Your task to perform on an android device: add a label to a message in the gmail app Image 0: 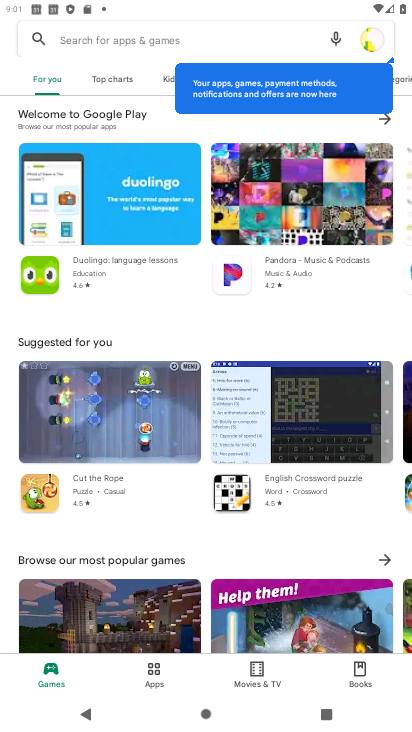
Step 0: press home button
Your task to perform on an android device: add a label to a message in the gmail app Image 1: 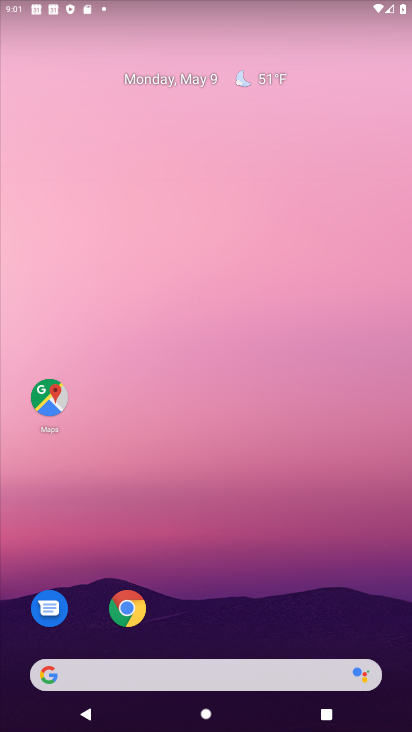
Step 1: drag from (285, 537) to (322, 81)
Your task to perform on an android device: add a label to a message in the gmail app Image 2: 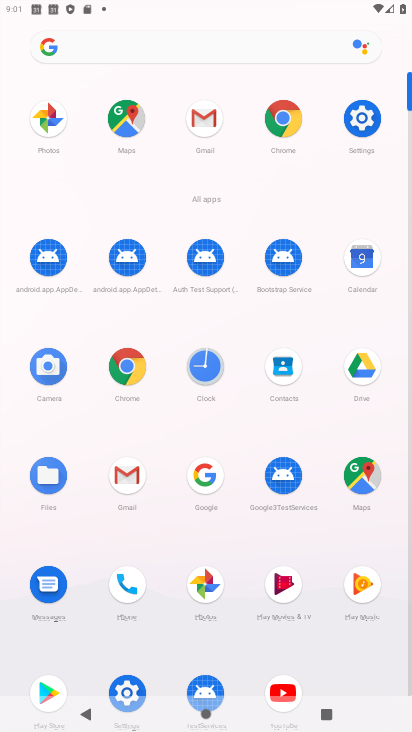
Step 2: click (201, 124)
Your task to perform on an android device: add a label to a message in the gmail app Image 3: 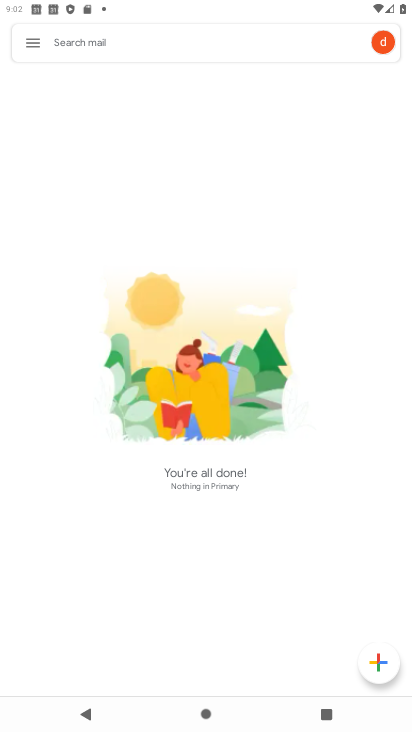
Step 3: click (22, 44)
Your task to perform on an android device: add a label to a message in the gmail app Image 4: 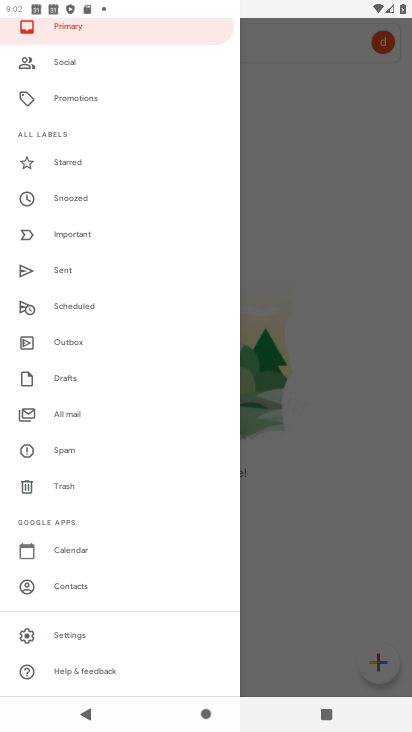
Step 4: drag from (76, 109) to (85, 542)
Your task to perform on an android device: add a label to a message in the gmail app Image 5: 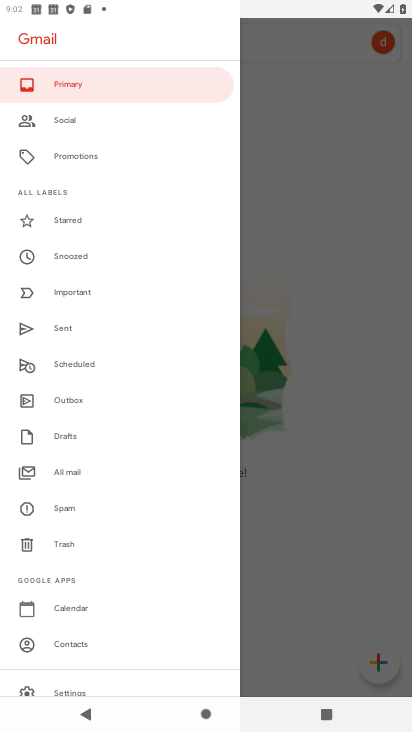
Step 5: click (59, 479)
Your task to perform on an android device: add a label to a message in the gmail app Image 6: 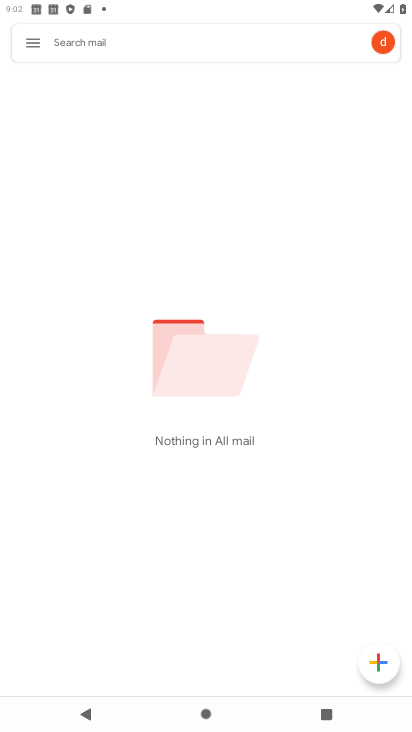
Step 6: task complete